Your task to perform on an android device: Toggle the flashlight Image 0: 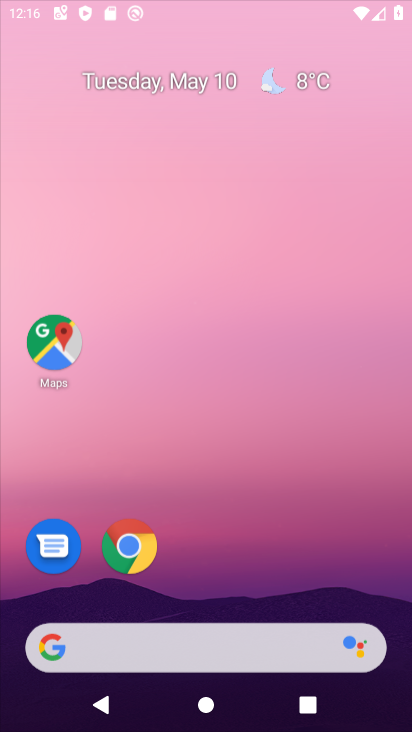
Step 0: click (183, 43)
Your task to perform on an android device: Toggle the flashlight Image 1: 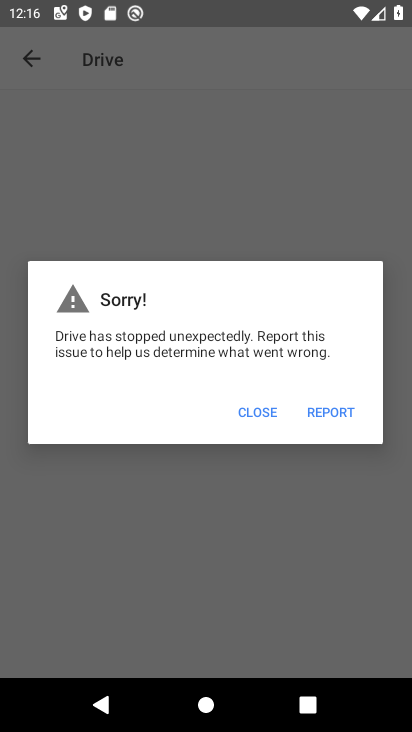
Step 1: click (68, 336)
Your task to perform on an android device: Toggle the flashlight Image 2: 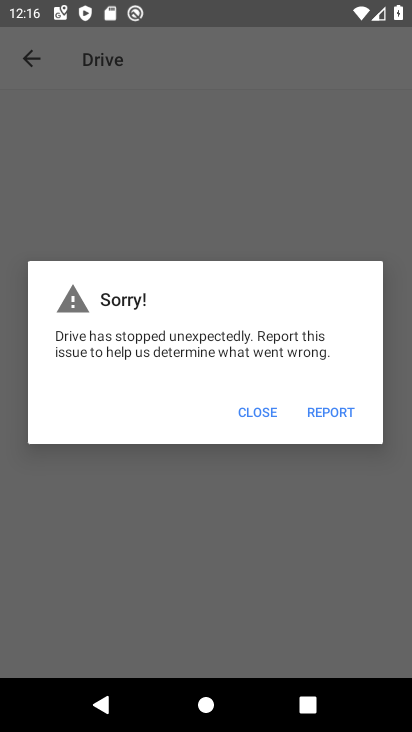
Step 2: click (68, 336)
Your task to perform on an android device: Toggle the flashlight Image 3: 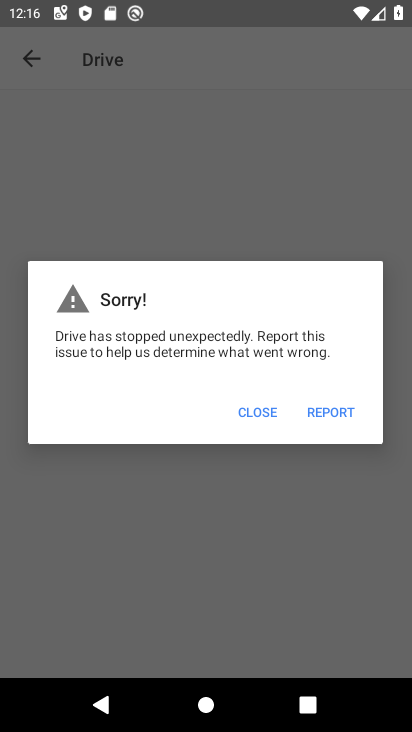
Step 3: click (68, 336)
Your task to perform on an android device: Toggle the flashlight Image 4: 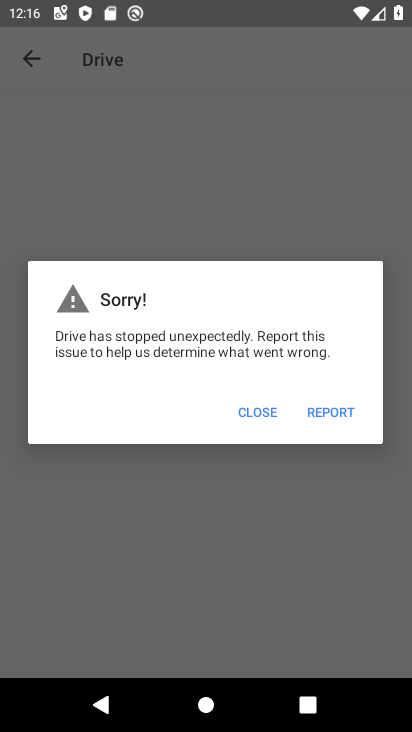
Step 4: click (251, 411)
Your task to perform on an android device: Toggle the flashlight Image 5: 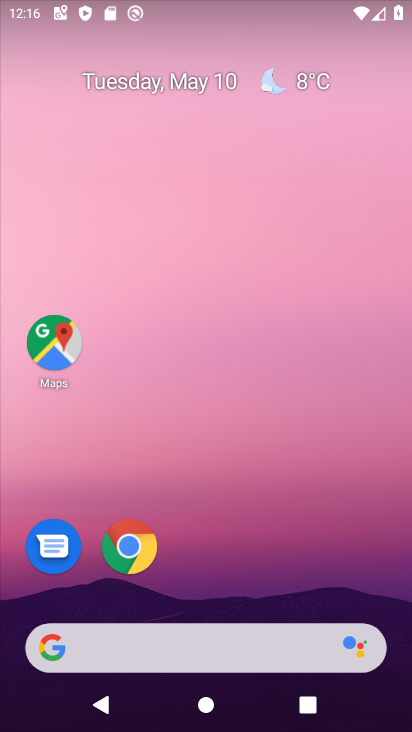
Step 5: click (70, 333)
Your task to perform on an android device: Toggle the flashlight Image 6: 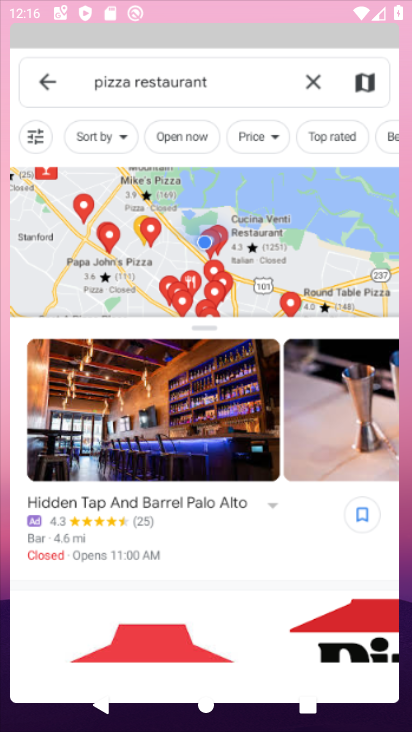
Step 6: click (55, 340)
Your task to perform on an android device: Toggle the flashlight Image 7: 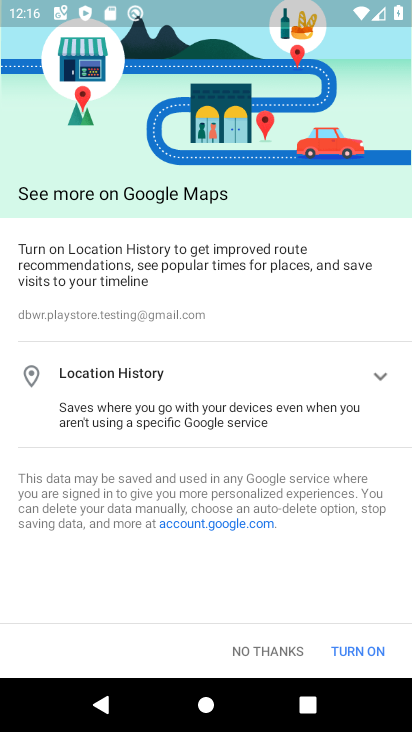
Step 7: click (369, 661)
Your task to perform on an android device: Toggle the flashlight Image 8: 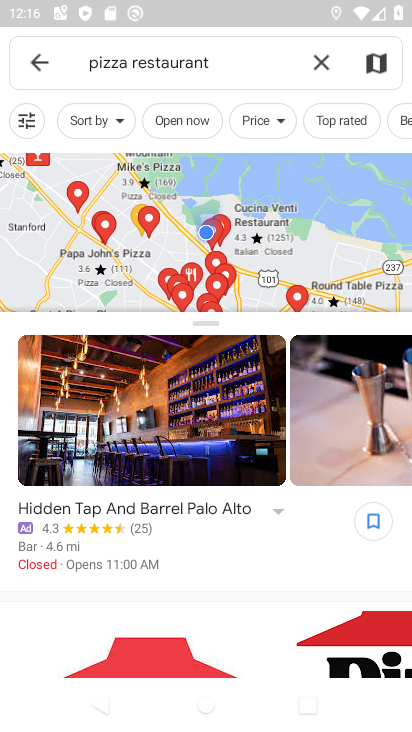
Step 8: click (320, 60)
Your task to perform on an android device: Toggle the flashlight Image 9: 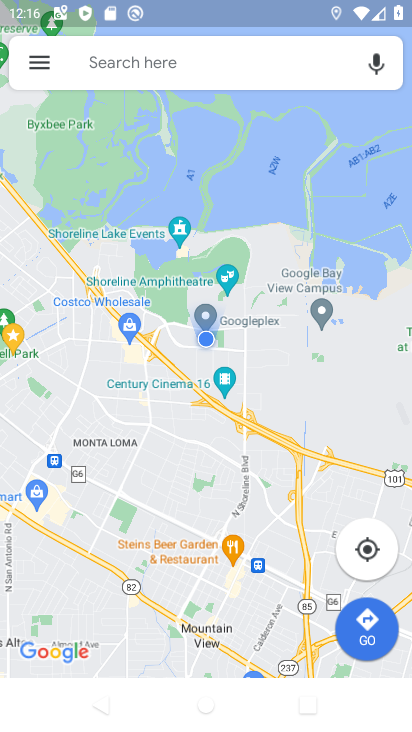
Step 9: task complete